Your task to perform on an android device: turn on notifications settings in the gmail app Image 0: 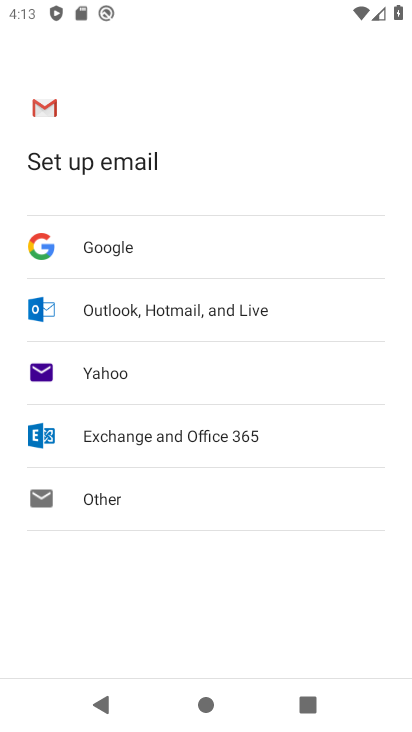
Step 0: drag from (379, 691) to (239, 223)
Your task to perform on an android device: turn on notifications settings in the gmail app Image 1: 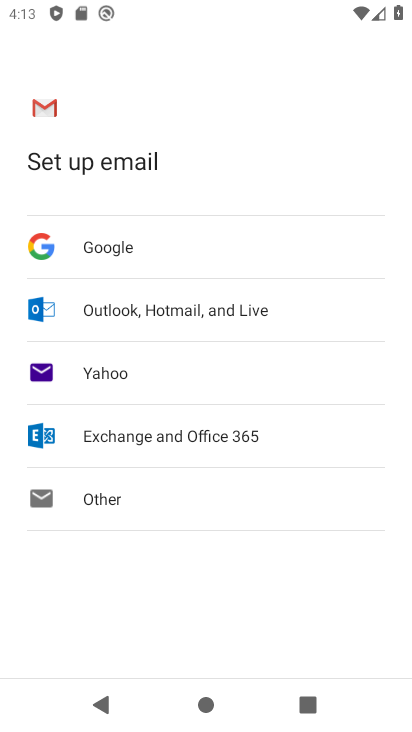
Step 1: press back button
Your task to perform on an android device: turn on notifications settings in the gmail app Image 2: 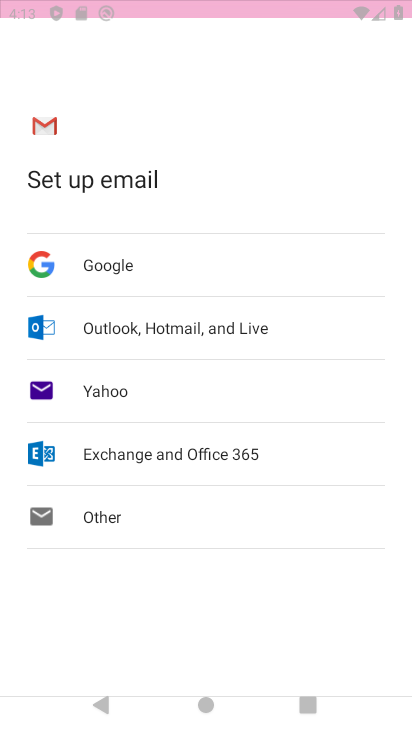
Step 2: press back button
Your task to perform on an android device: turn on notifications settings in the gmail app Image 3: 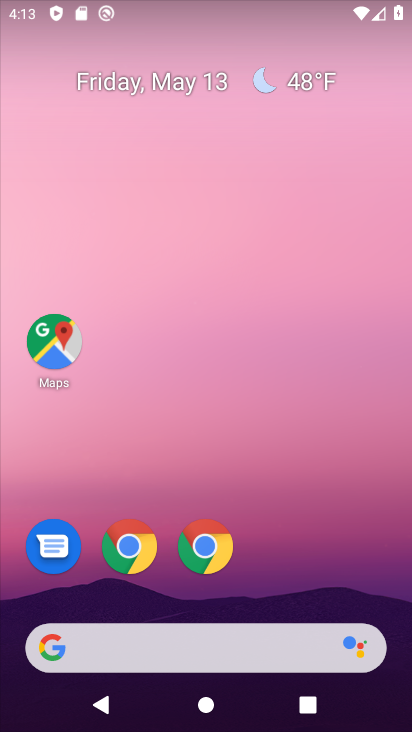
Step 3: drag from (278, 633) to (183, 91)
Your task to perform on an android device: turn on notifications settings in the gmail app Image 4: 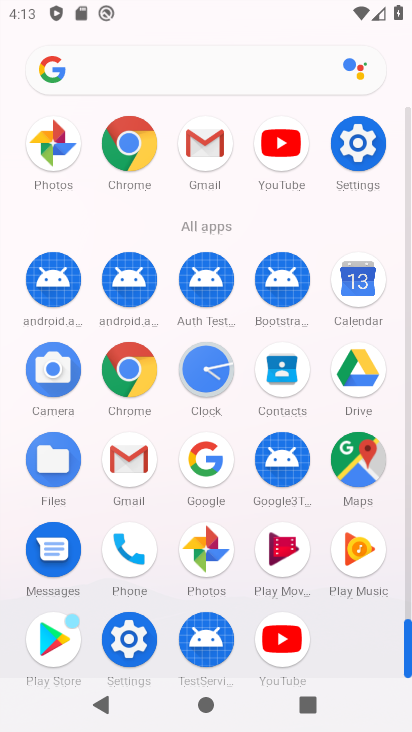
Step 4: click (137, 454)
Your task to perform on an android device: turn on notifications settings in the gmail app Image 5: 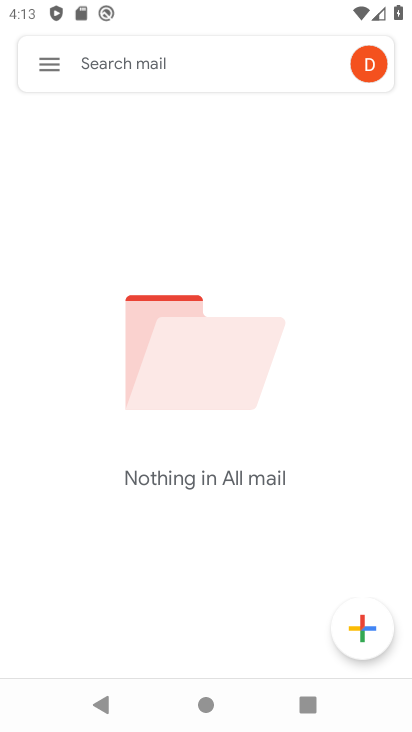
Step 5: click (41, 70)
Your task to perform on an android device: turn on notifications settings in the gmail app Image 6: 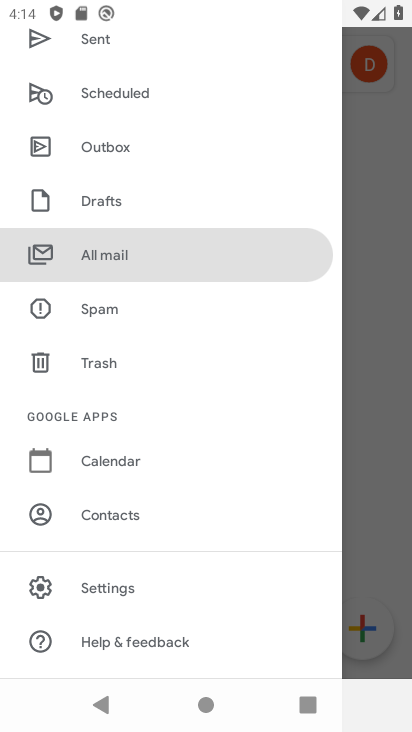
Step 6: click (105, 588)
Your task to perform on an android device: turn on notifications settings in the gmail app Image 7: 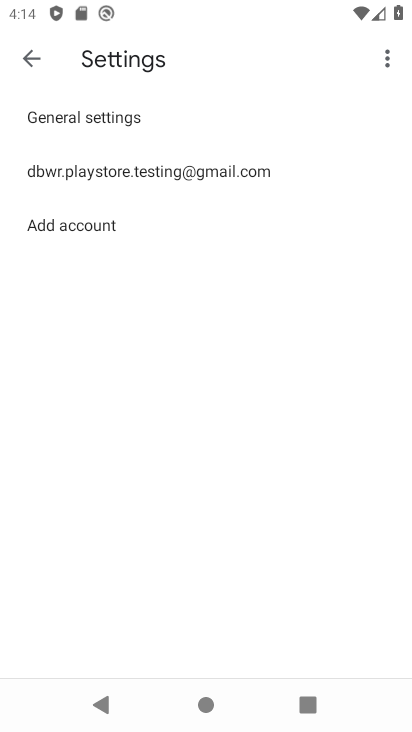
Step 7: click (145, 164)
Your task to perform on an android device: turn on notifications settings in the gmail app Image 8: 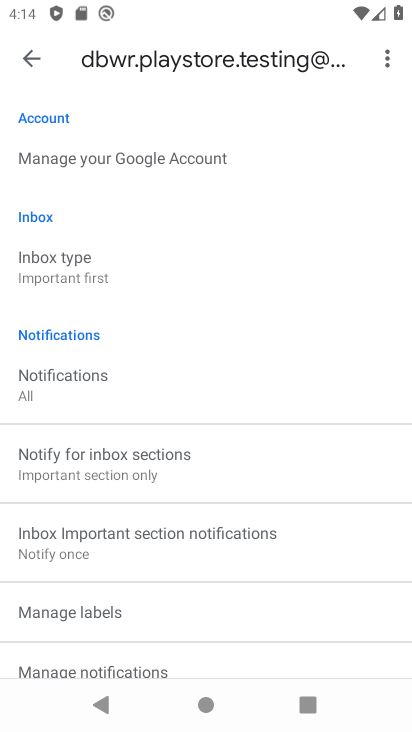
Step 8: click (55, 379)
Your task to perform on an android device: turn on notifications settings in the gmail app Image 9: 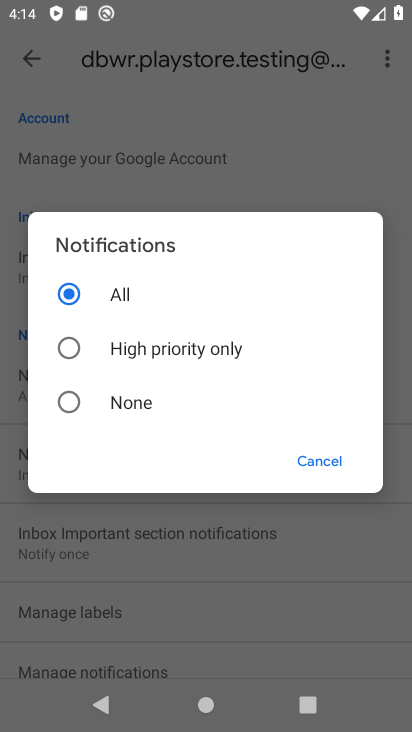
Step 9: click (324, 475)
Your task to perform on an android device: turn on notifications settings in the gmail app Image 10: 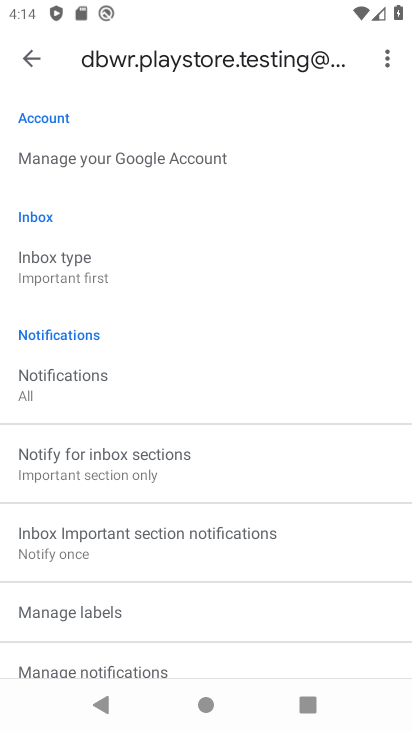
Step 10: task complete